Your task to perform on an android device: toggle data saver in the chrome app Image 0: 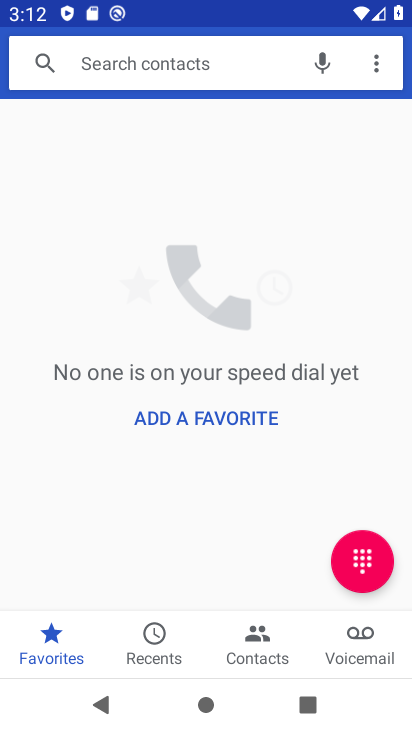
Step 0: press home button
Your task to perform on an android device: toggle data saver in the chrome app Image 1: 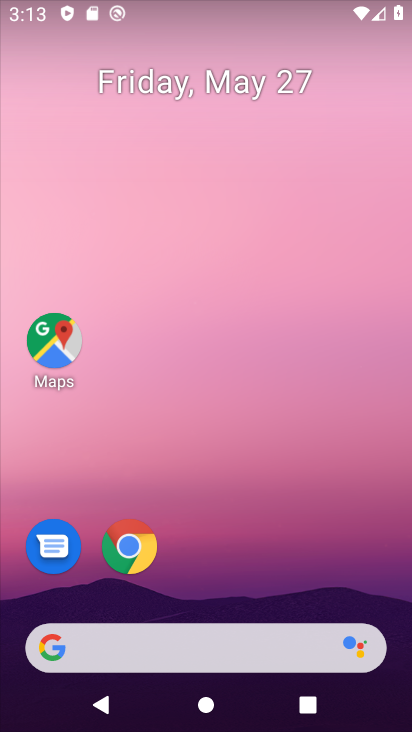
Step 1: click (126, 563)
Your task to perform on an android device: toggle data saver in the chrome app Image 2: 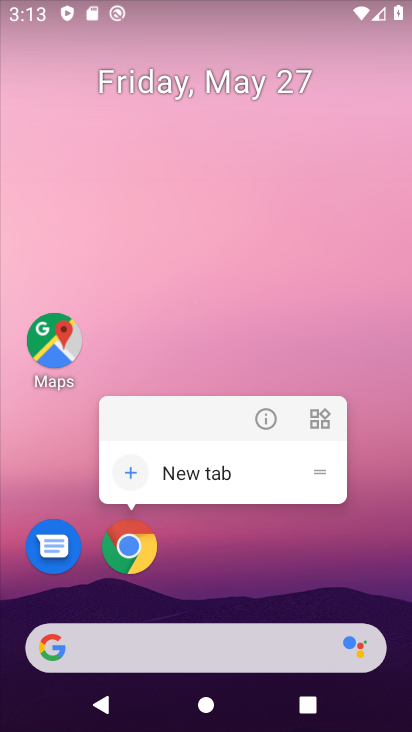
Step 2: click (135, 550)
Your task to perform on an android device: toggle data saver in the chrome app Image 3: 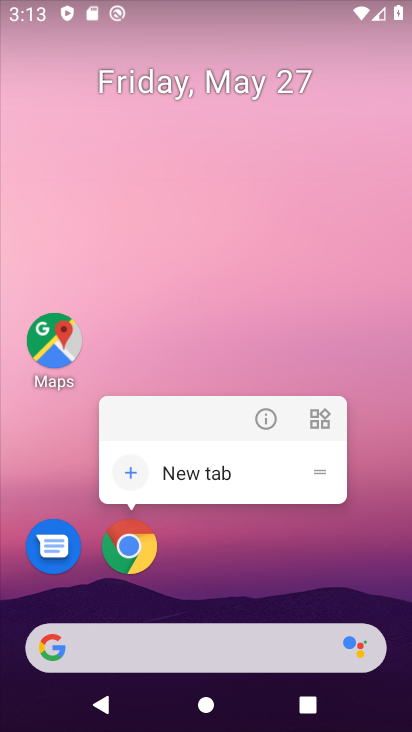
Step 3: click (135, 550)
Your task to perform on an android device: toggle data saver in the chrome app Image 4: 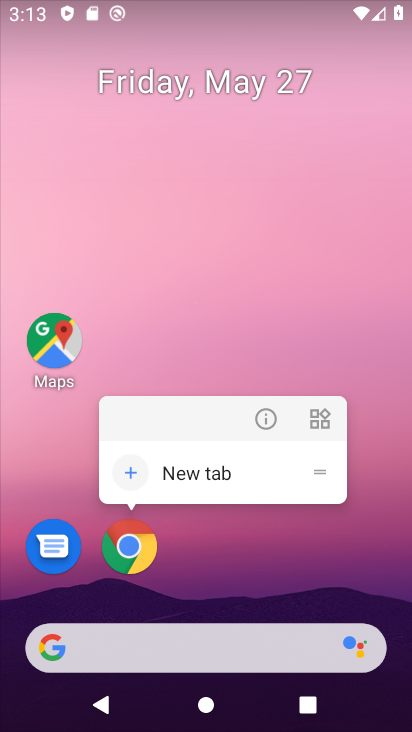
Step 4: click (129, 545)
Your task to perform on an android device: toggle data saver in the chrome app Image 5: 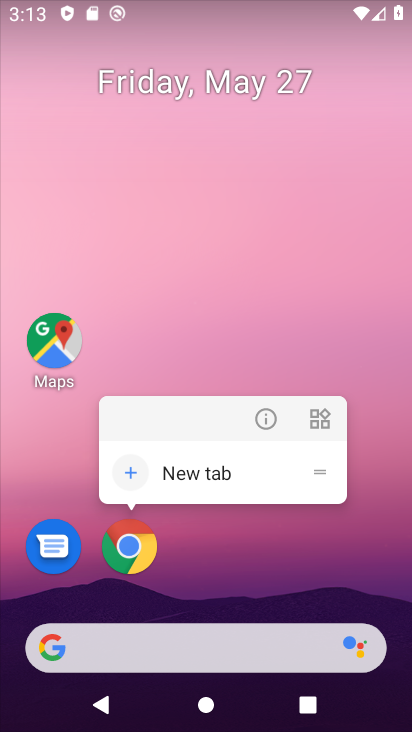
Step 5: click (137, 543)
Your task to perform on an android device: toggle data saver in the chrome app Image 6: 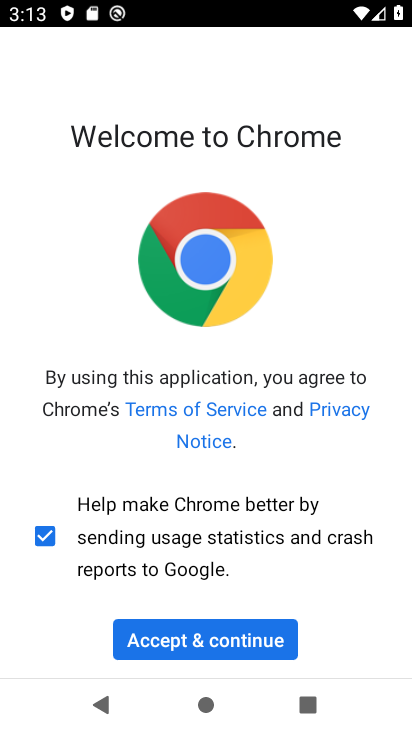
Step 6: click (241, 637)
Your task to perform on an android device: toggle data saver in the chrome app Image 7: 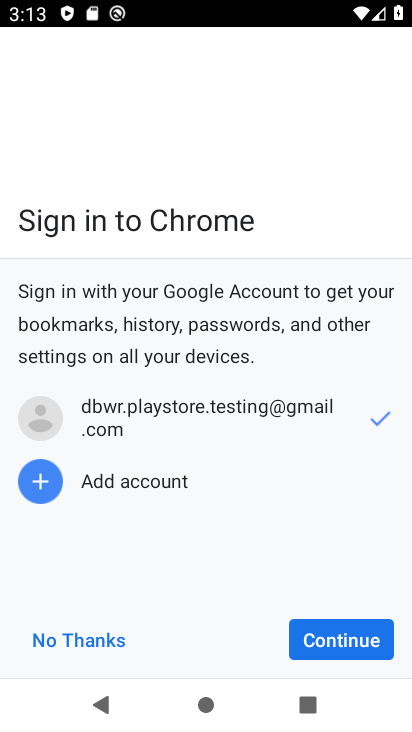
Step 7: click (338, 627)
Your task to perform on an android device: toggle data saver in the chrome app Image 8: 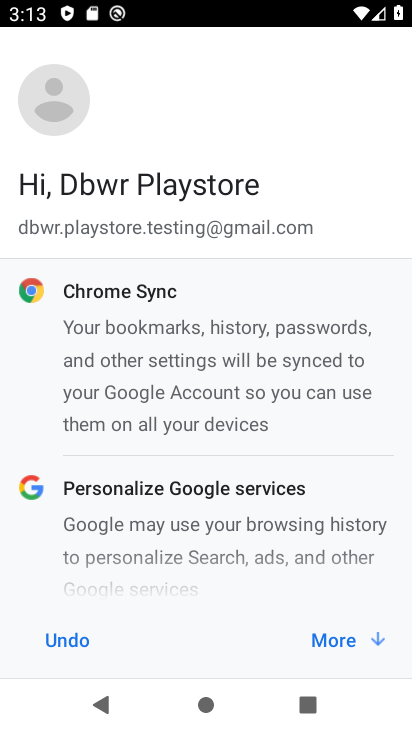
Step 8: click (344, 626)
Your task to perform on an android device: toggle data saver in the chrome app Image 9: 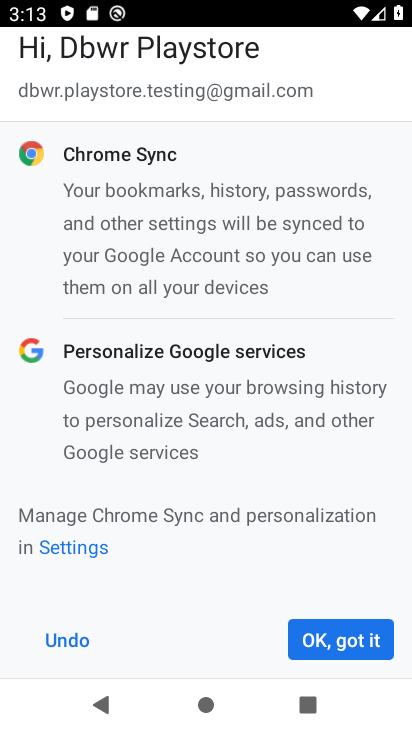
Step 9: click (363, 621)
Your task to perform on an android device: toggle data saver in the chrome app Image 10: 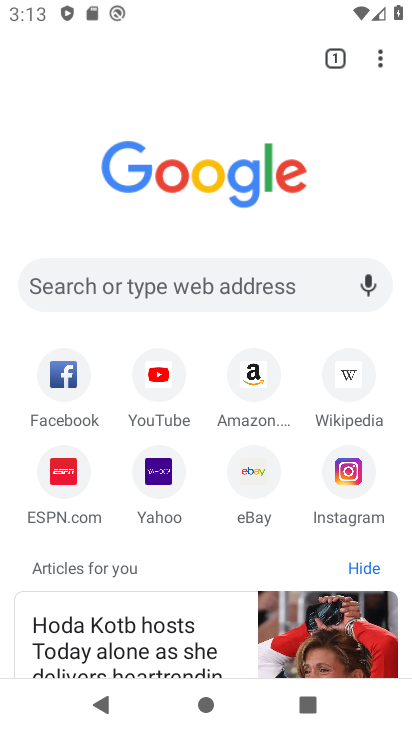
Step 10: drag from (392, 68) to (308, 484)
Your task to perform on an android device: toggle data saver in the chrome app Image 11: 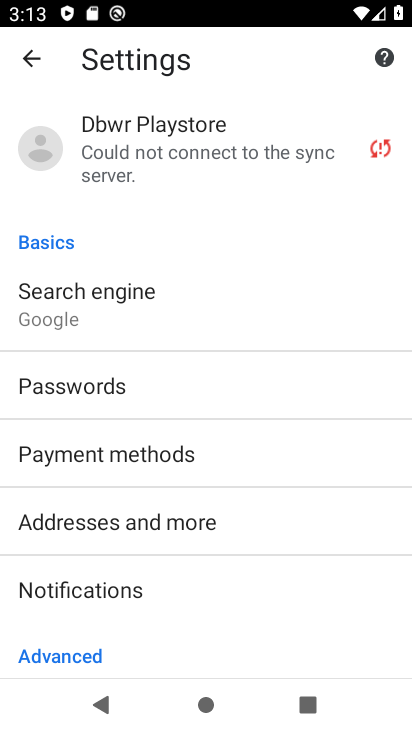
Step 11: drag from (151, 642) to (297, 110)
Your task to perform on an android device: toggle data saver in the chrome app Image 12: 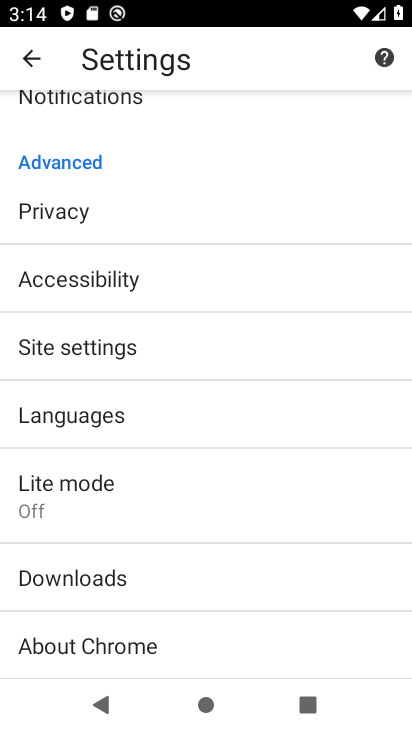
Step 12: click (174, 490)
Your task to perform on an android device: toggle data saver in the chrome app Image 13: 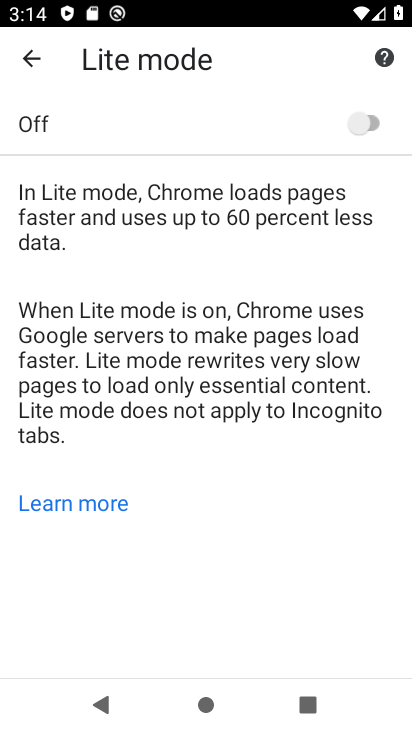
Step 13: click (360, 115)
Your task to perform on an android device: toggle data saver in the chrome app Image 14: 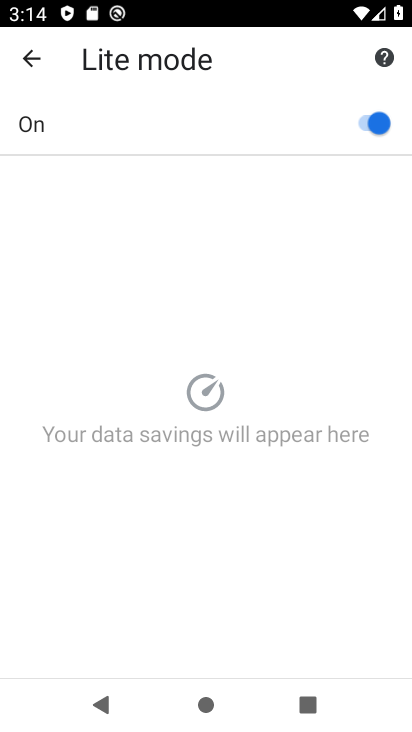
Step 14: task complete